Your task to perform on an android device: Find coffee shops on Maps Image 0: 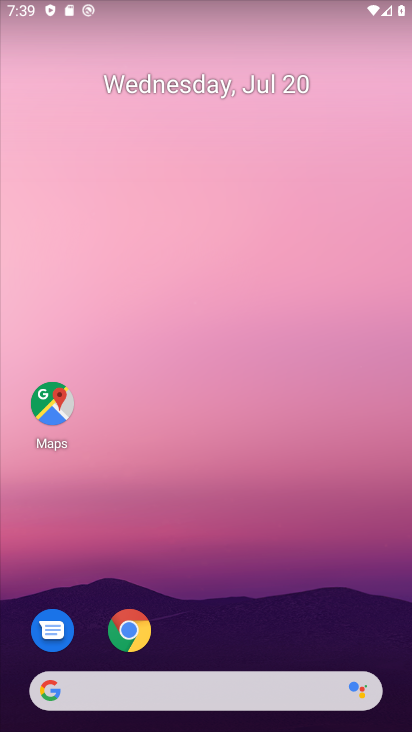
Step 0: drag from (271, 599) to (224, 194)
Your task to perform on an android device: Find coffee shops on Maps Image 1: 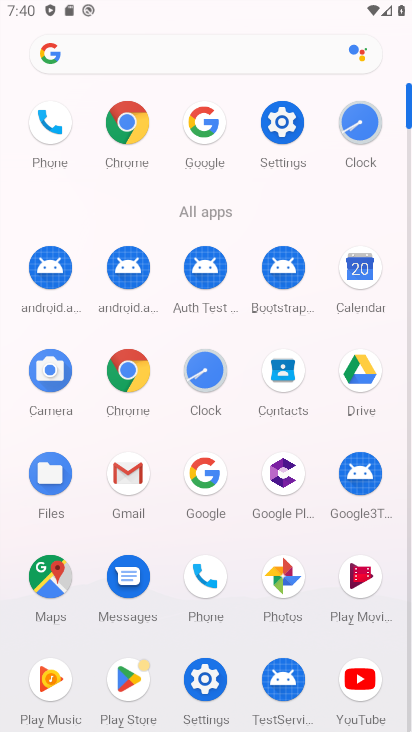
Step 1: click (50, 593)
Your task to perform on an android device: Find coffee shops on Maps Image 2: 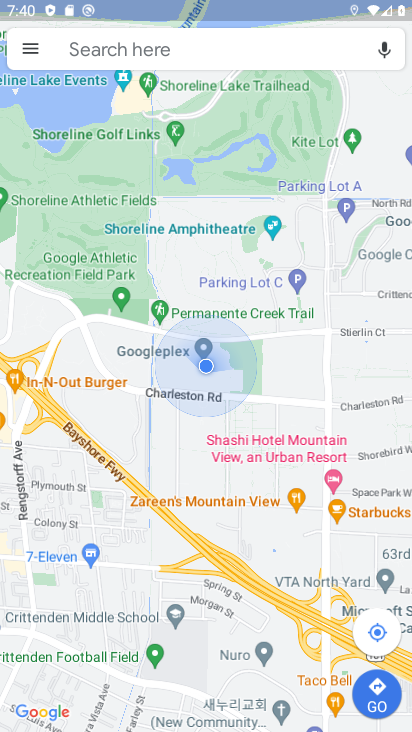
Step 2: click (155, 48)
Your task to perform on an android device: Find coffee shops on Maps Image 3: 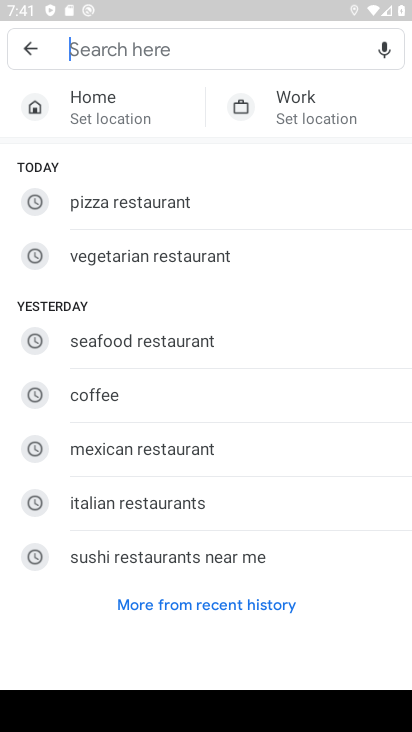
Step 3: type "coffee shops"
Your task to perform on an android device: Find coffee shops on Maps Image 4: 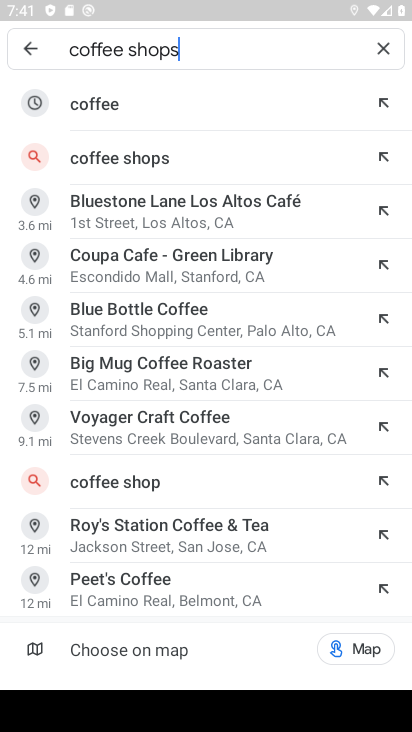
Step 4: click (183, 160)
Your task to perform on an android device: Find coffee shops on Maps Image 5: 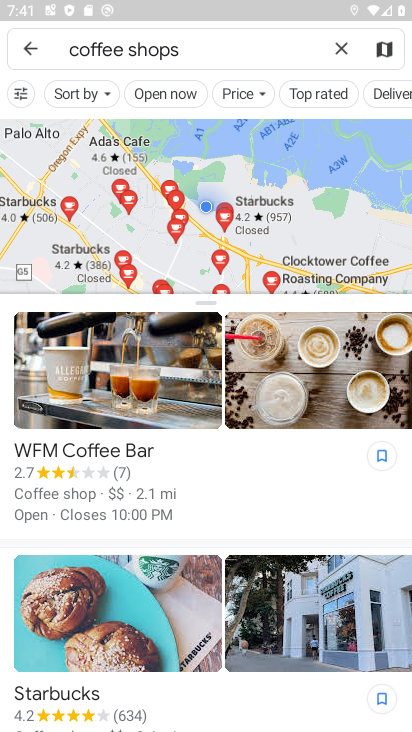
Step 5: task complete